Your task to perform on an android device: Go to network settings Image 0: 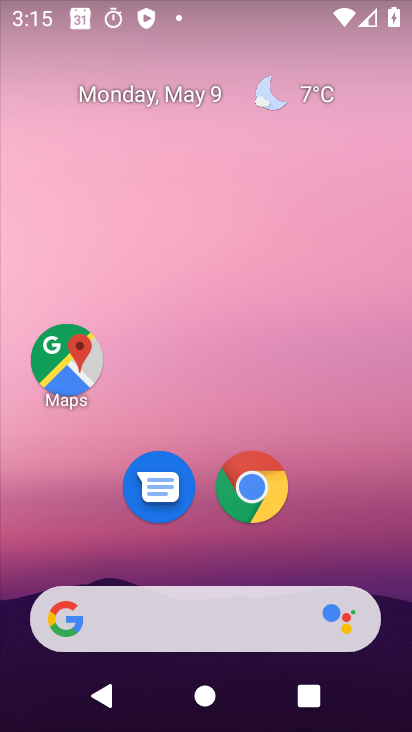
Step 0: drag from (236, 615) to (231, 5)
Your task to perform on an android device: Go to network settings Image 1: 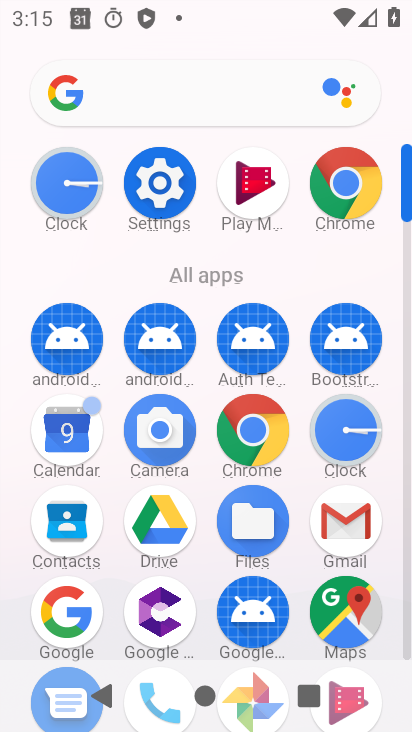
Step 1: click (153, 187)
Your task to perform on an android device: Go to network settings Image 2: 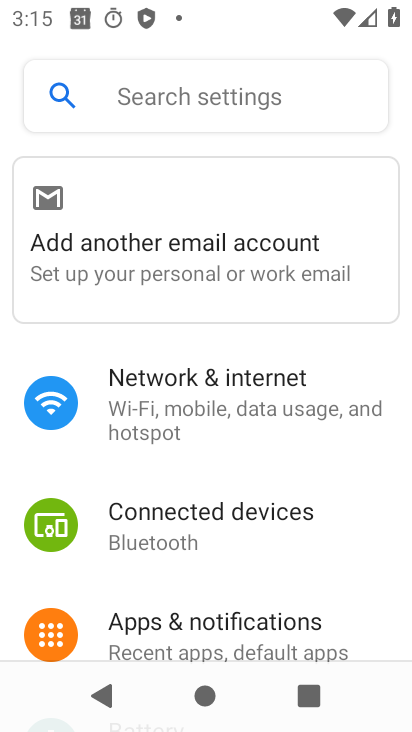
Step 2: click (277, 376)
Your task to perform on an android device: Go to network settings Image 3: 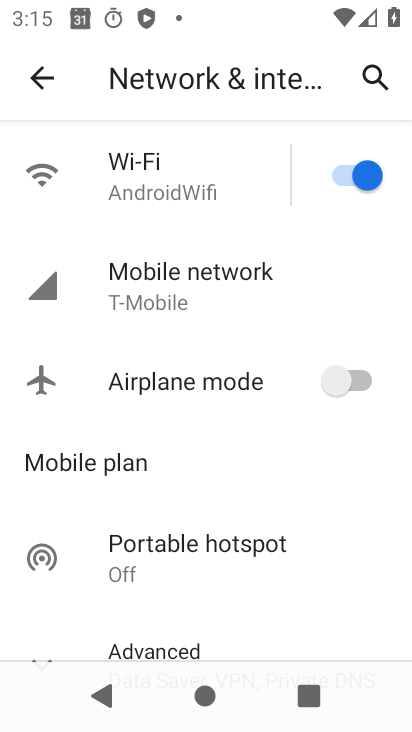
Step 3: task complete